Your task to perform on an android device: Open display settings Image 0: 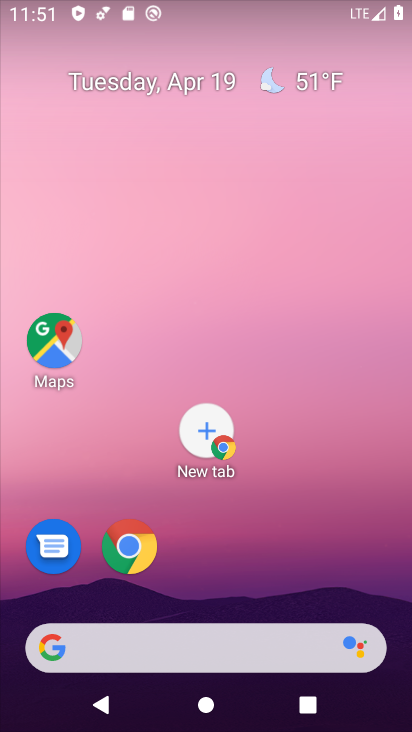
Step 0: drag from (209, 11) to (155, 696)
Your task to perform on an android device: Open display settings Image 1: 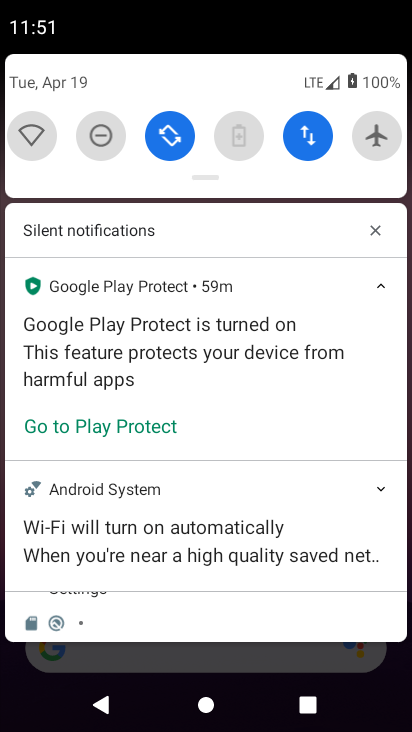
Step 1: drag from (209, 80) to (186, 621)
Your task to perform on an android device: Open display settings Image 2: 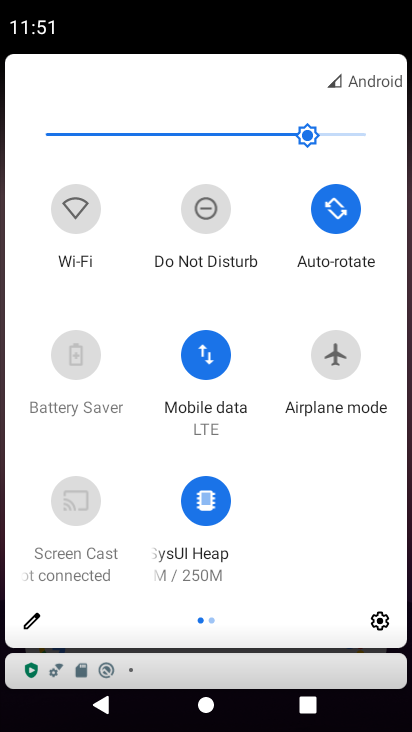
Step 2: click (382, 622)
Your task to perform on an android device: Open display settings Image 3: 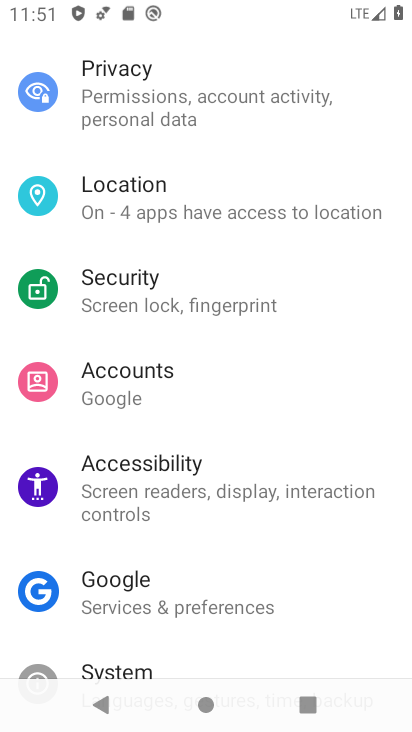
Step 3: drag from (157, 607) to (216, 152)
Your task to perform on an android device: Open display settings Image 4: 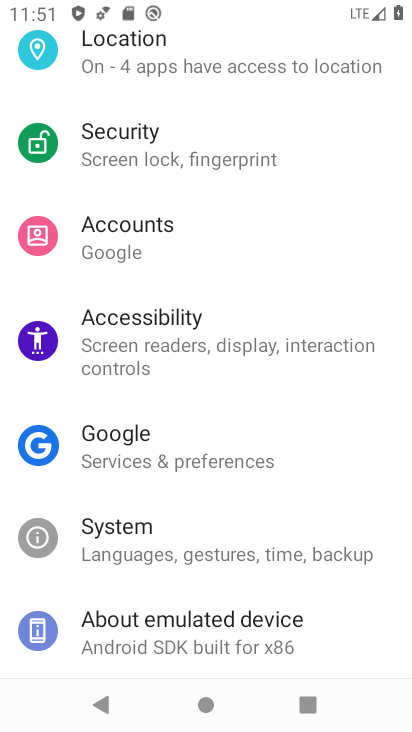
Step 4: drag from (195, 209) to (227, 497)
Your task to perform on an android device: Open display settings Image 5: 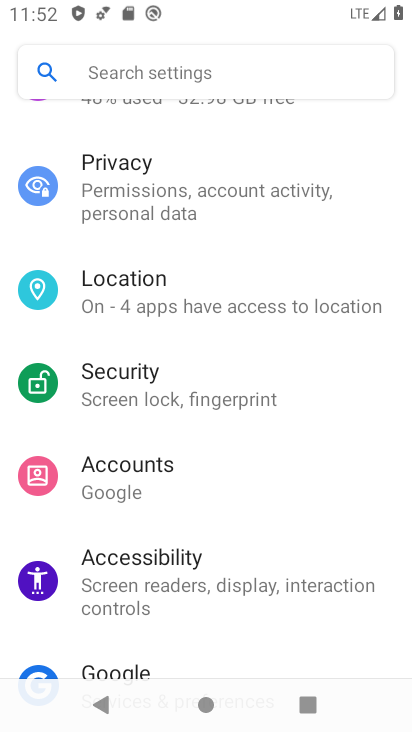
Step 5: drag from (200, 213) to (175, 645)
Your task to perform on an android device: Open display settings Image 6: 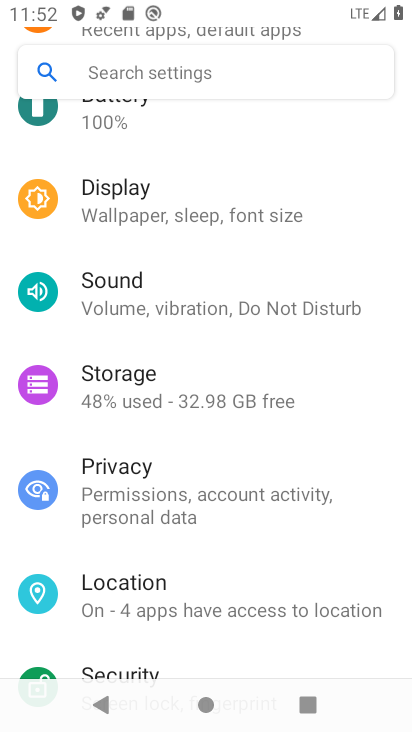
Step 6: click (59, 215)
Your task to perform on an android device: Open display settings Image 7: 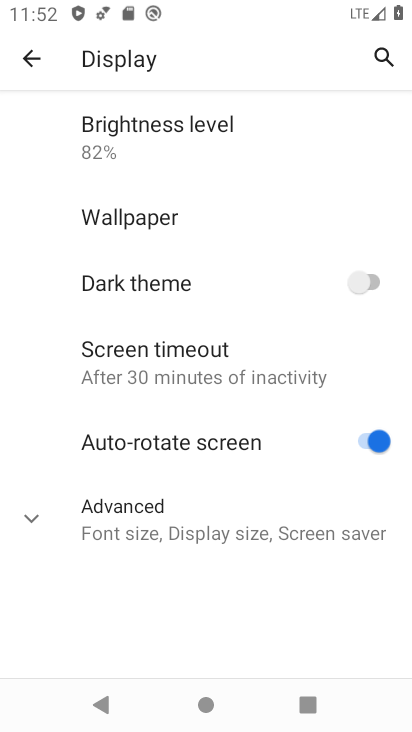
Step 7: task complete